Your task to perform on an android device: toggle sleep mode Image 0: 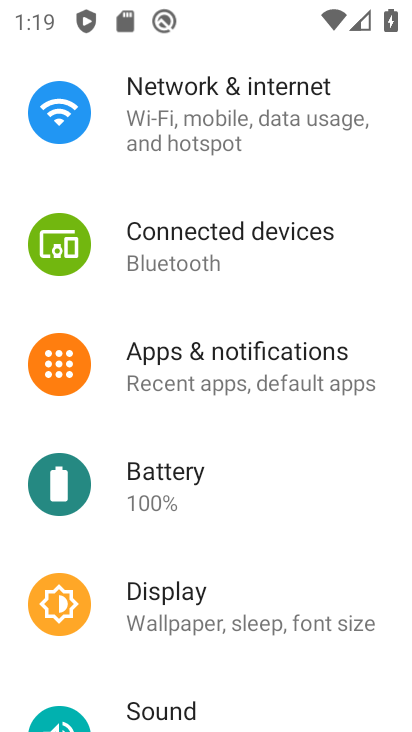
Step 0: click (232, 624)
Your task to perform on an android device: toggle sleep mode Image 1: 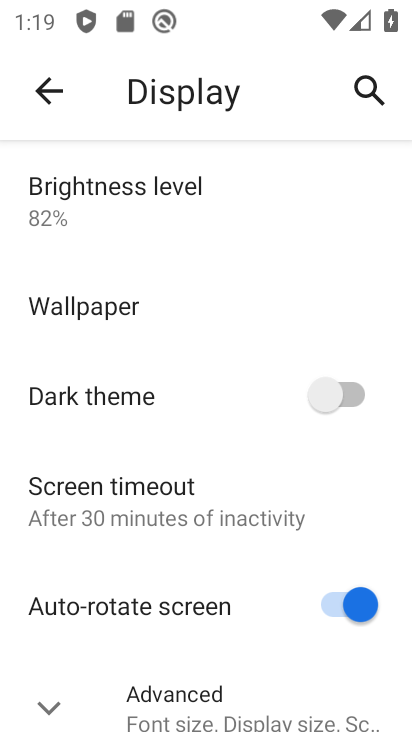
Step 1: drag from (236, 634) to (232, 153)
Your task to perform on an android device: toggle sleep mode Image 2: 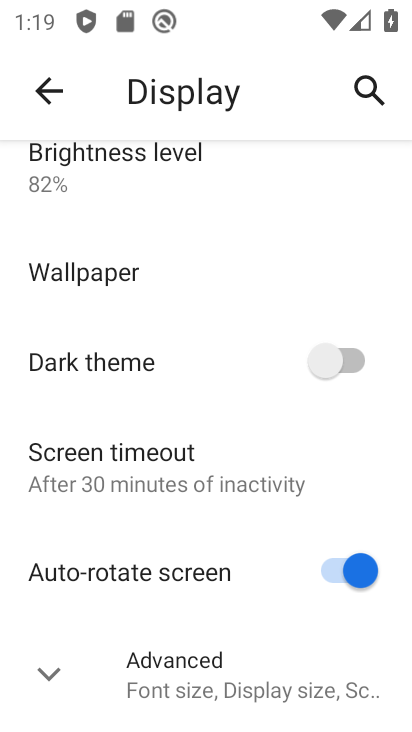
Step 2: click (109, 677)
Your task to perform on an android device: toggle sleep mode Image 3: 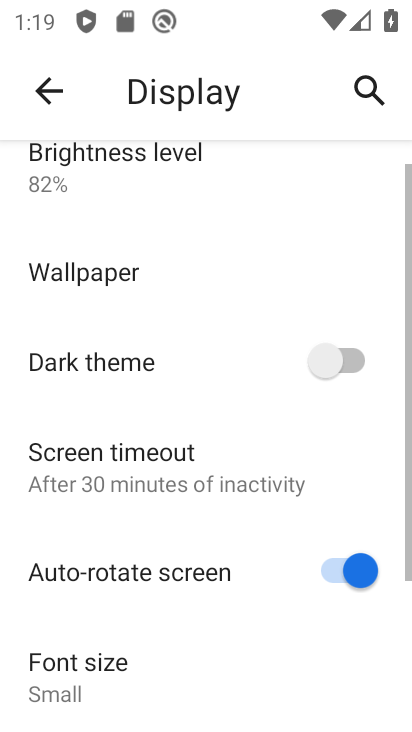
Step 3: task complete